Your task to perform on an android device: Is it going to rain this weekend? Image 0: 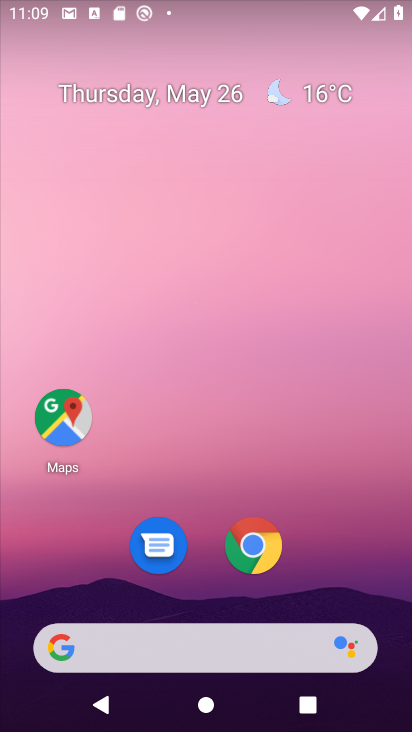
Step 0: press home button
Your task to perform on an android device: Is it going to rain this weekend? Image 1: 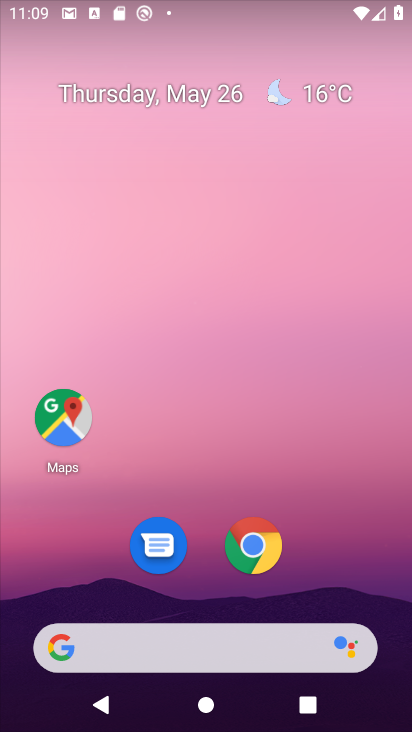
Step 1: click (52, 644)
Your task to perform on an android device: Is it going to rain this weekend? Image 2: 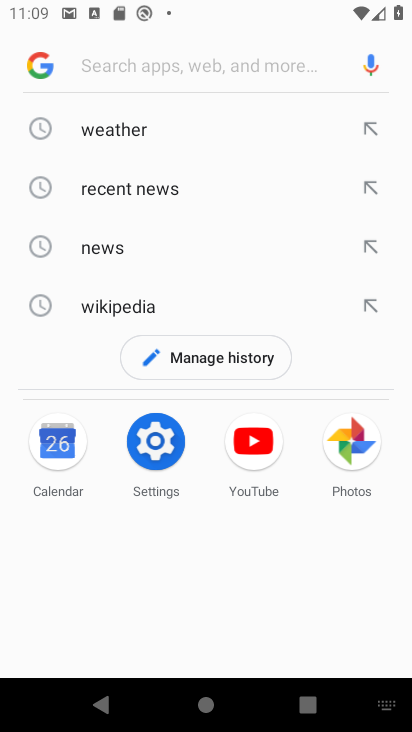
Step 2: type "rain this weekend?"
Your task to perform on an android device: Is it going to rain this weekend? Image 3: 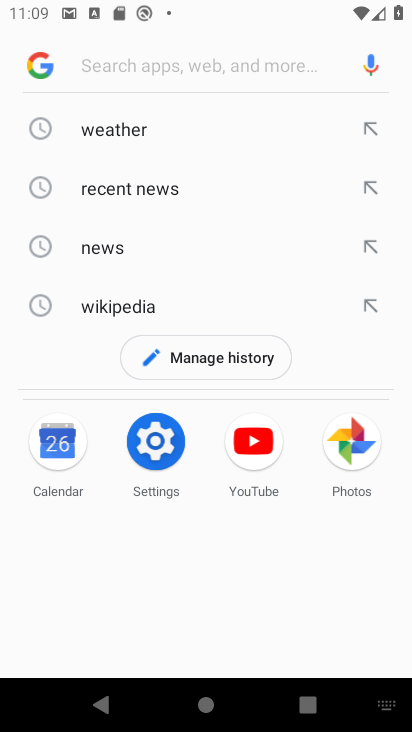
Step 3: click (168, 55)
Your task to perform on an android device: Is it going to rain this weekend? Image 4: 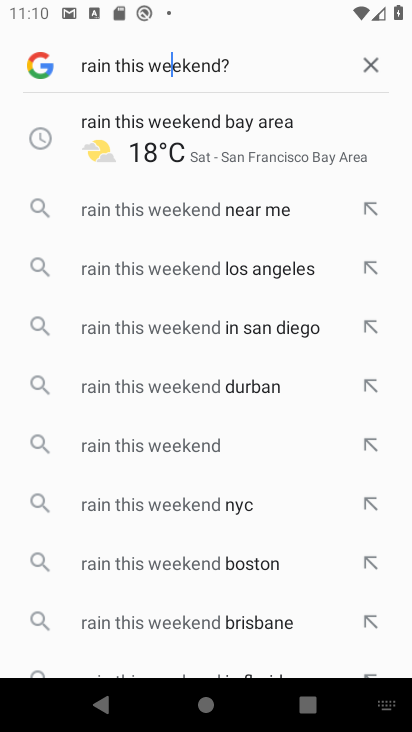
Step 4: click (171, 454)
Your task to perform on an android device: Is it going to rain this weekend? Image 5: 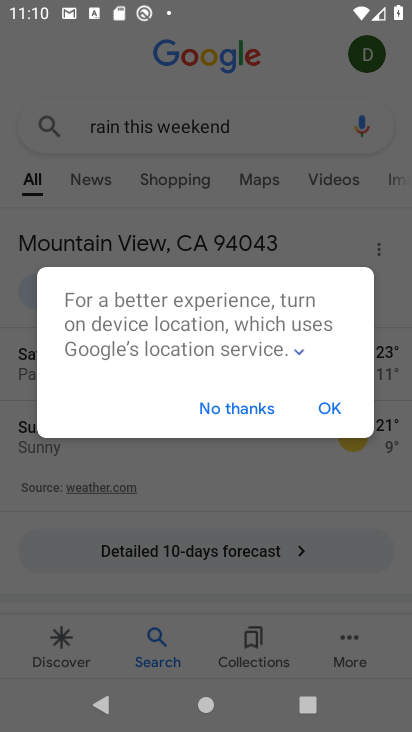
Step 5: click (334, 412)
Your task to perform on an android device: Is it going to rain this weekend? Image 6: 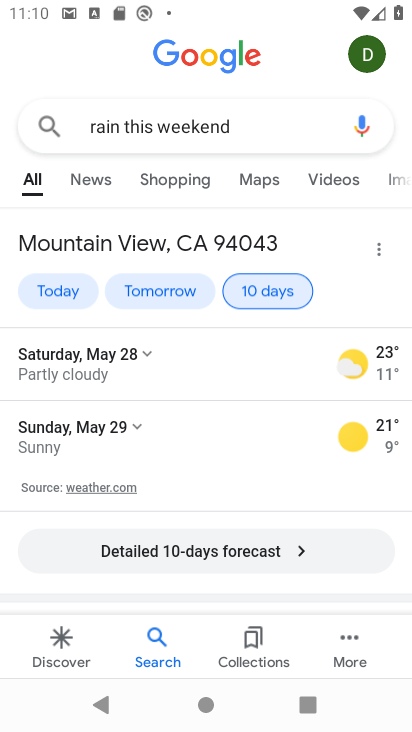
Step 6: task complete